Your task to perform on an android device: turn off notifications settings in the gmail app Image 0: 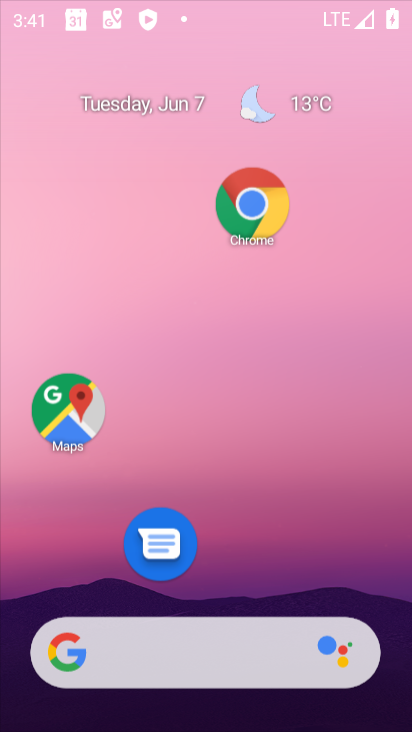
Step 0: press home button
Your task to perform on an android device: turn off notifications settings in the gmail app Image 1: 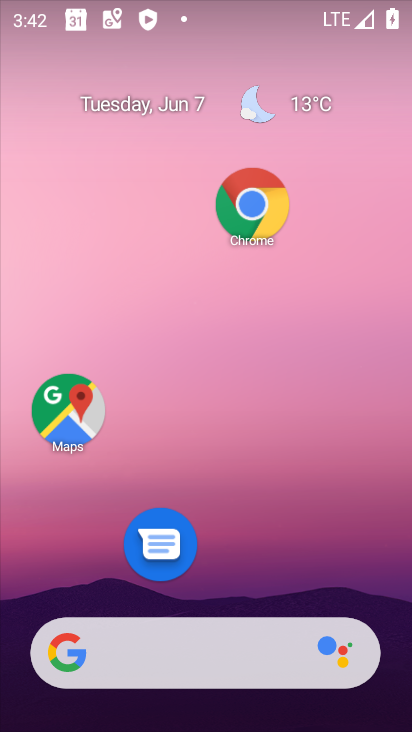
Step 1: drag from (218, 438) to (219, 32)
Your task to perform on an android device: turn off notifications settings in the gmail app Image 2: 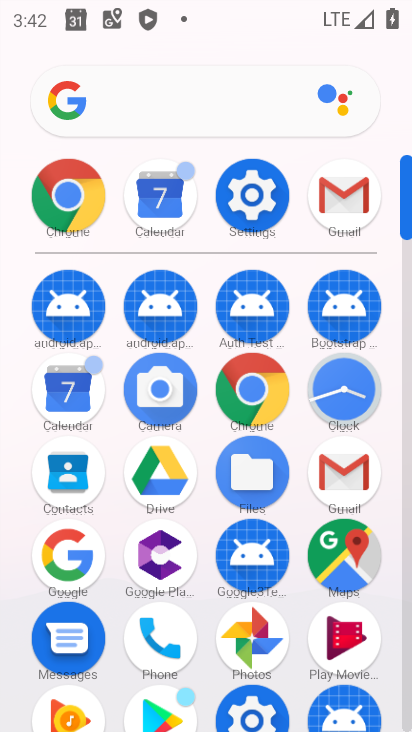
Step 2: click (342, 458)
Your task to perform on an android device: turn off notifications settings in the gmail app Image 3: 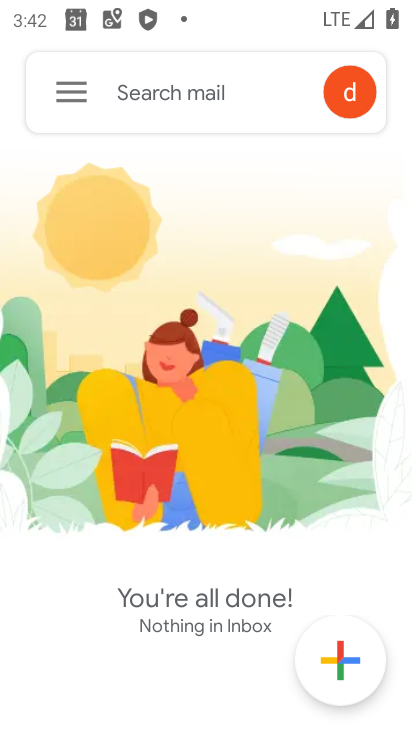
Step 3: click (73, 83)
Your task to perform on an android device: turn off notifications settings in the gmail app Image 4: 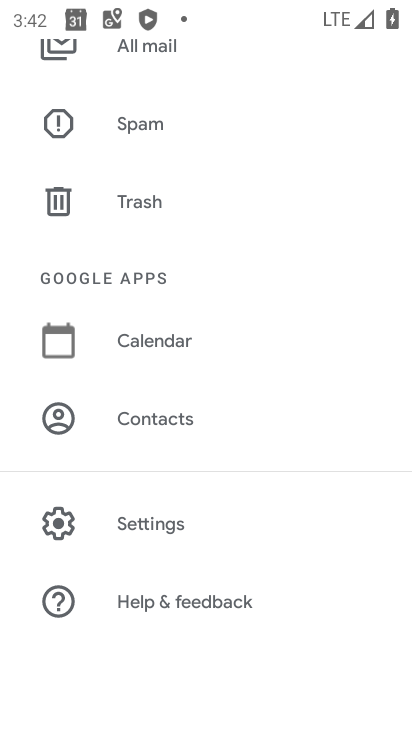
Step 4: click (104, 521)
Your task to perform on an android device: turn off notifications settings in the gmail app Image 5: 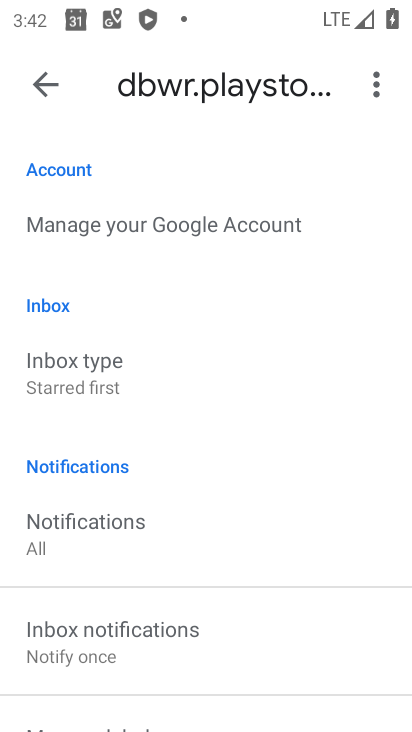
Step 5: click (47, 90)
Your task to perform on an android device: turn off notifications settings in the gmail app Image 6: 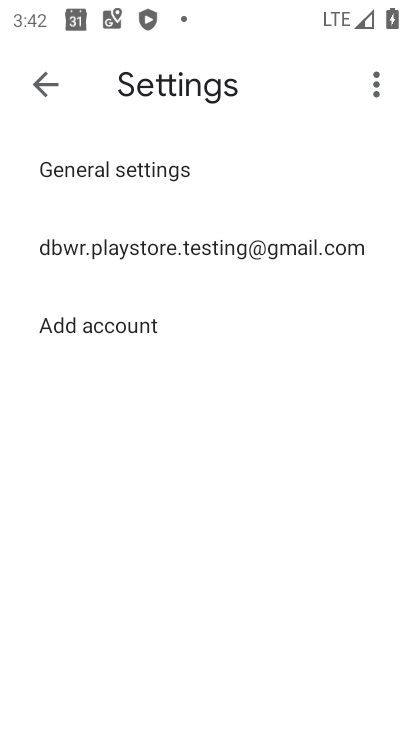
Step 6: click (139, 170)
Your task to perform on an android device: turn off notifications settings in the gmail app Image 7: 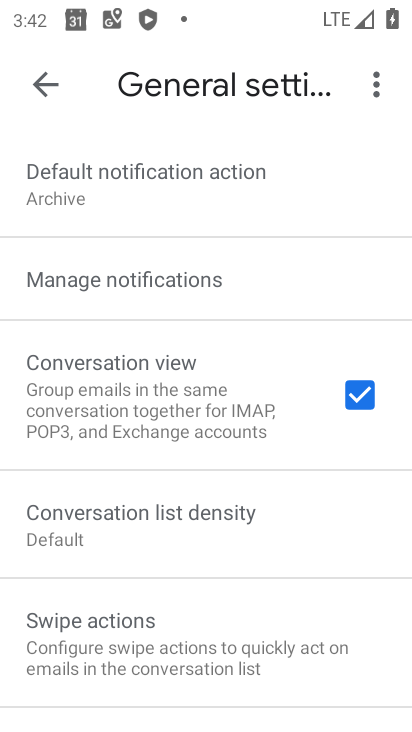
Step 7: click (238, 278)
Your task to perform on an android device: turn off notifications settings in the gmail app Image 8: 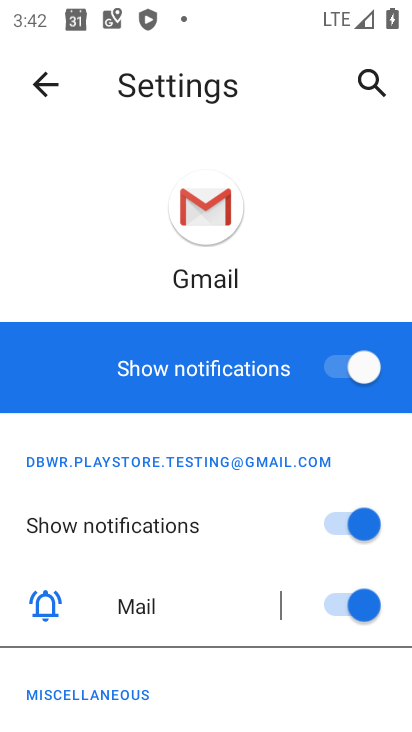
Step 8: click (338, 357)
Your task to perform on an android device: turn off notifications settings in the gmail app Image 9: 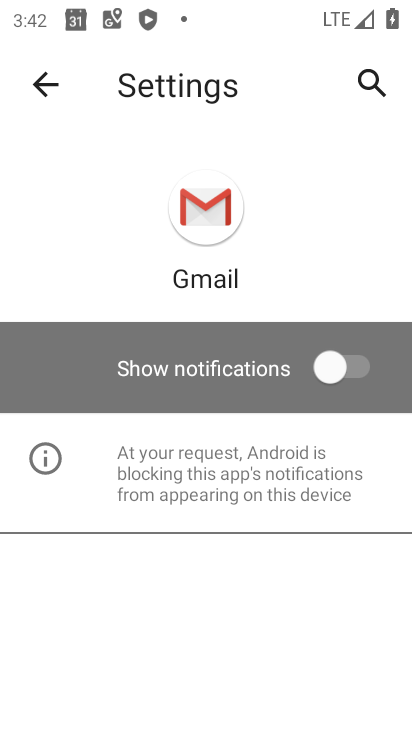
Step 9: task complete